Your task to perform on an android device: toggle priority inbox in the gmail app Image 0: 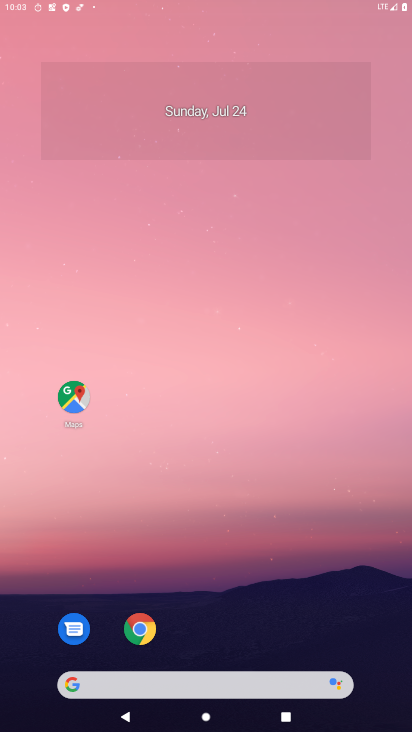
Step 0: press home button
Your task to perform on an android device: toggle priority inbox in the gmail app Image 1: 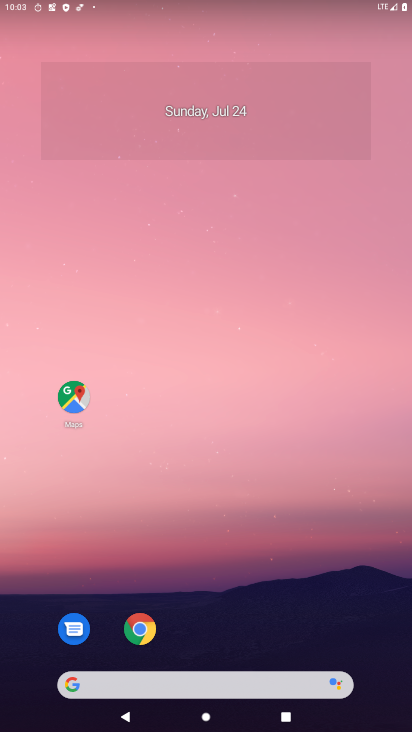
Step 1: drag from (298, 626) to (278, 30)
Your task to perform on an android device: toggle priority inbox in the gmail app Image 2: 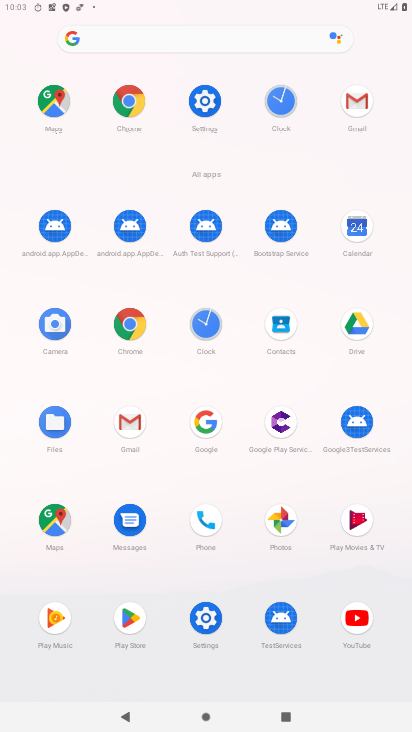
Step 2: click (362, 98)
Your task to perform on an android device: toggle priority inbox in the gmail app Image 3: 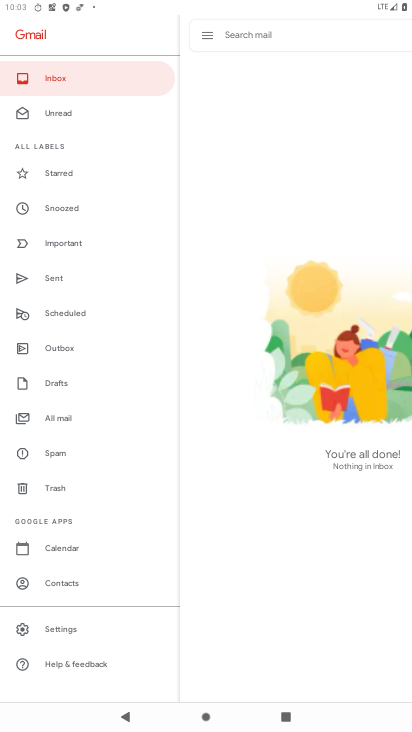
Step 3: click (51, 622)
Your task to perform on an android device: toggle priority inbox in the gmail app Image 4: 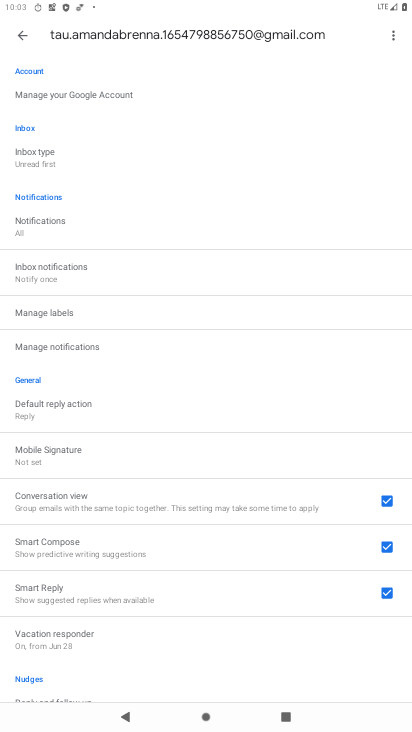
Step 4: click (52, 158)
Your task to perform on an android device: toggle priority inbox in the gmail app Image 5: 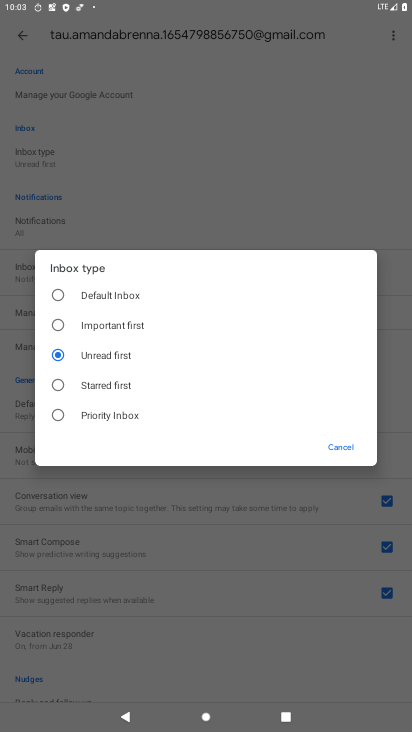
Step 5: click (60, 415)
Your task to perform on an android device: toggle priority inbox in the gmail app Image 6: 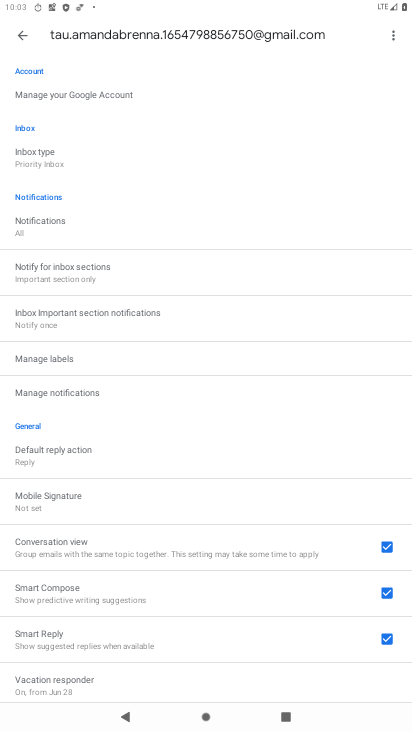
Step 6: task complete